Your task to perform on an android device: toggle notification dots Image 0: 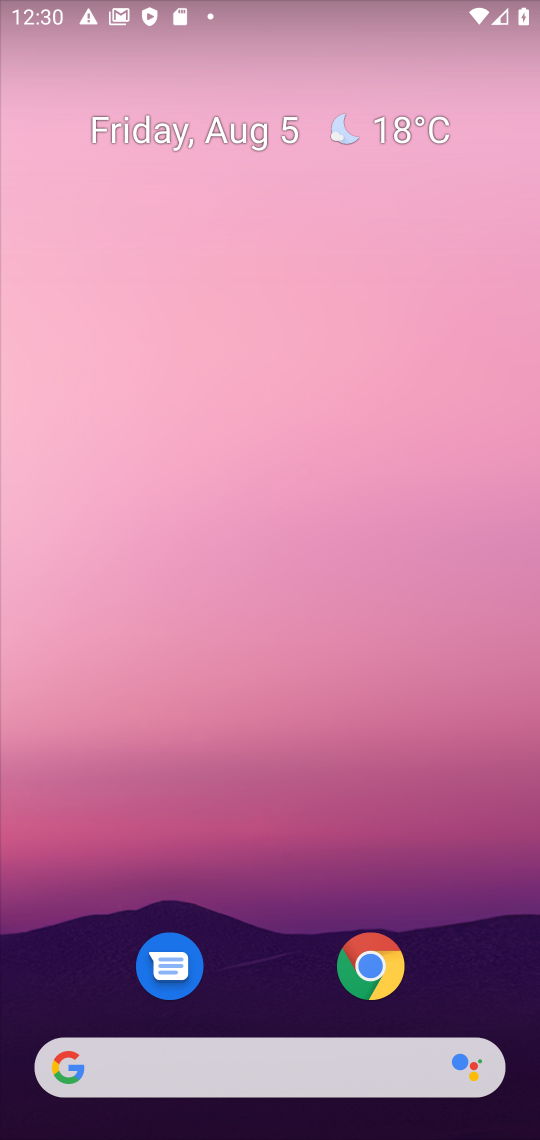
Step 0: drag from (255, 873) to (281, 29)
Your task to perform on an android device: toggle notification dots Image 1: 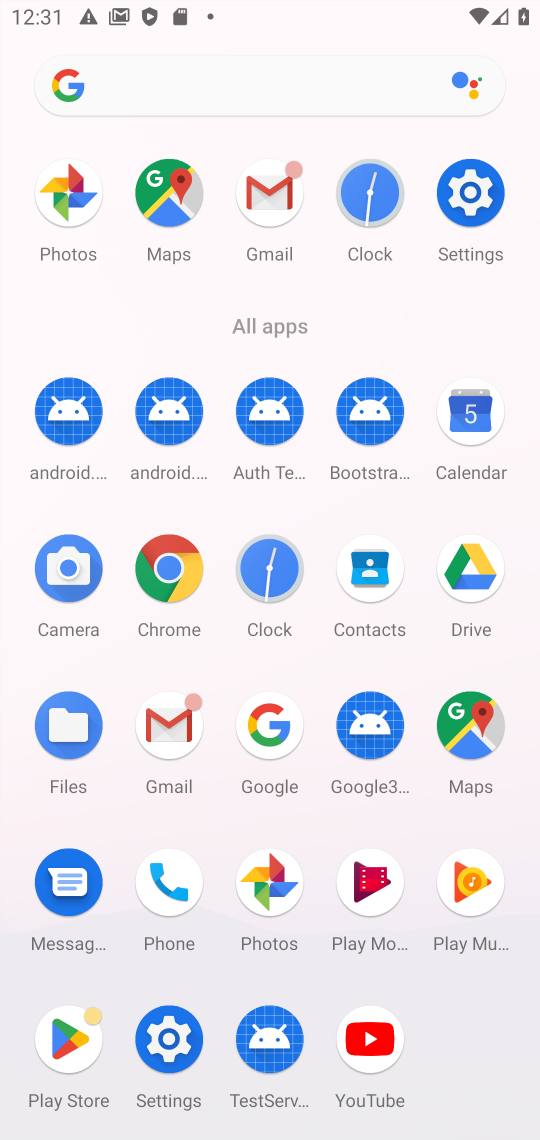
Step 1: click (462, 200)
Your task to perform on an android device: toggle notification dots Image 2: 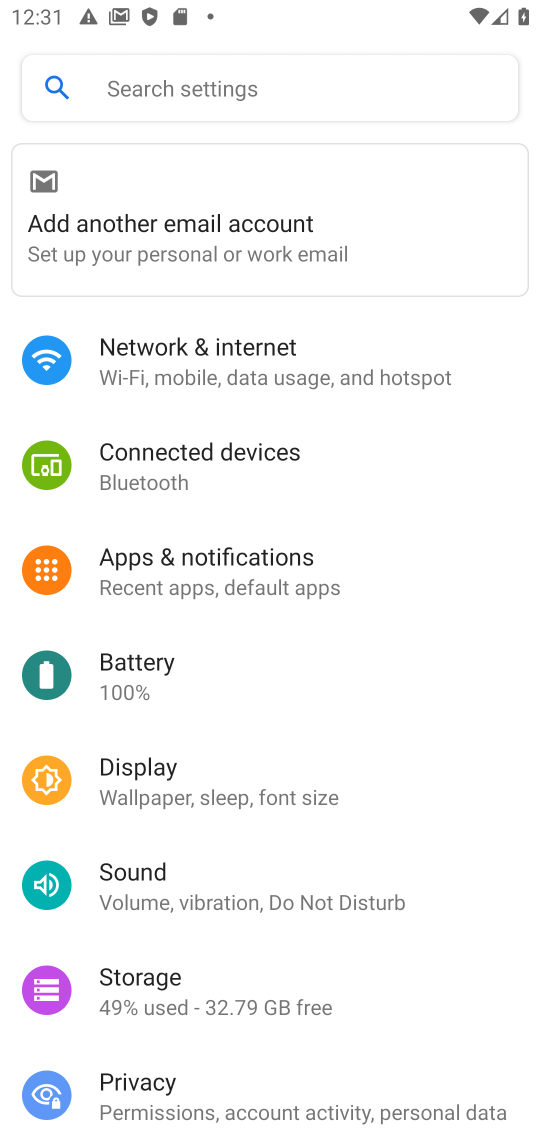
Step 2: click (220, 580)
Your task to perform on an android device: toggle notification dots Image 3: 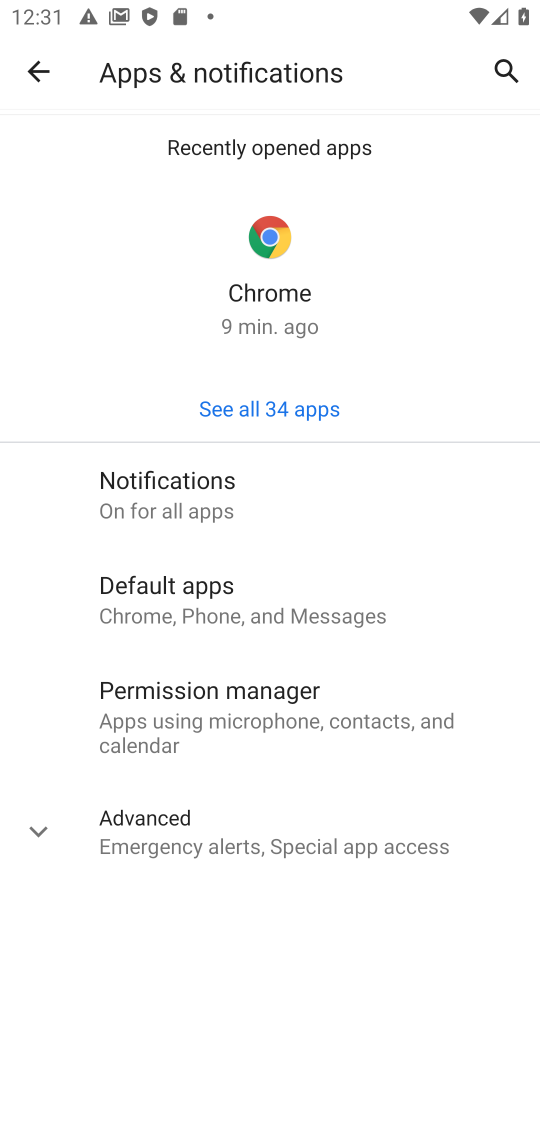
Step 3: click (195, 495)
Your task to perform on an android device: toggle notification dots Image 4: 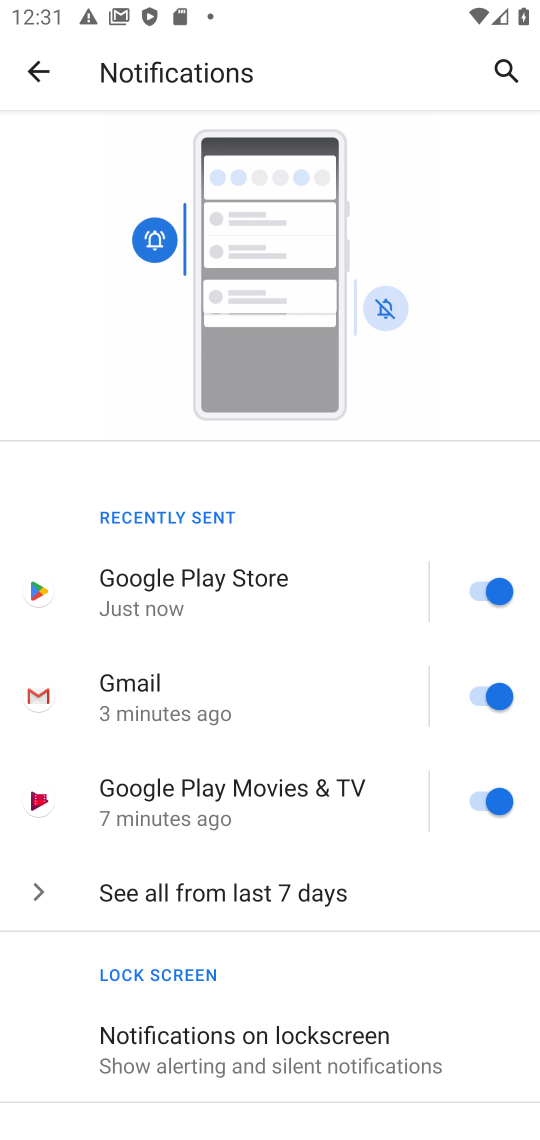
Step 4: drag from (327, 814) to (364, 674)
Your task to perform on an android device: toggle notification dots Image 5: 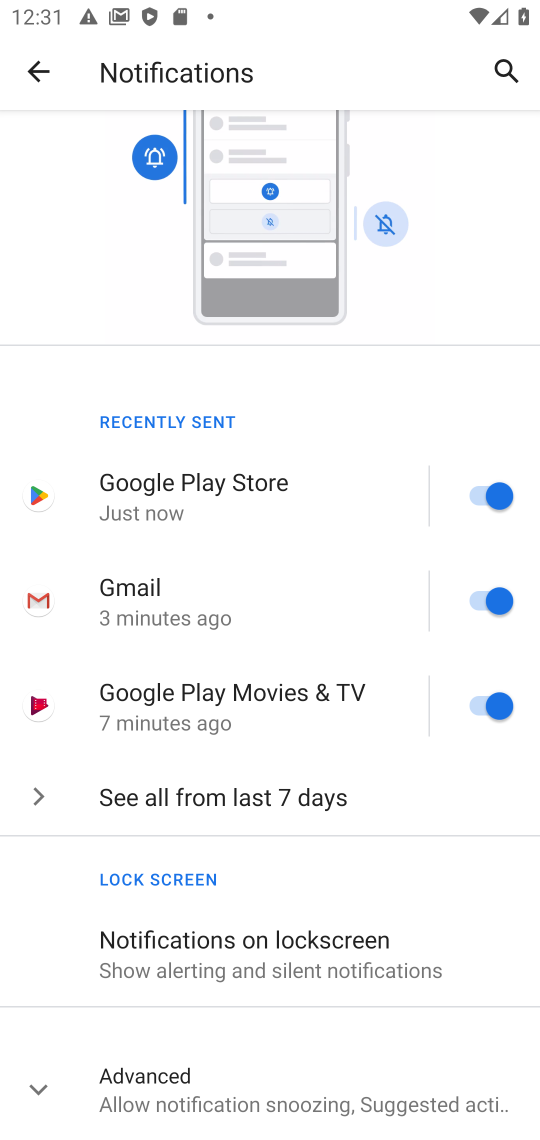
Step 5: click (42, 1088)
Your task to perform on an android device: toggle notification dots Image 6: 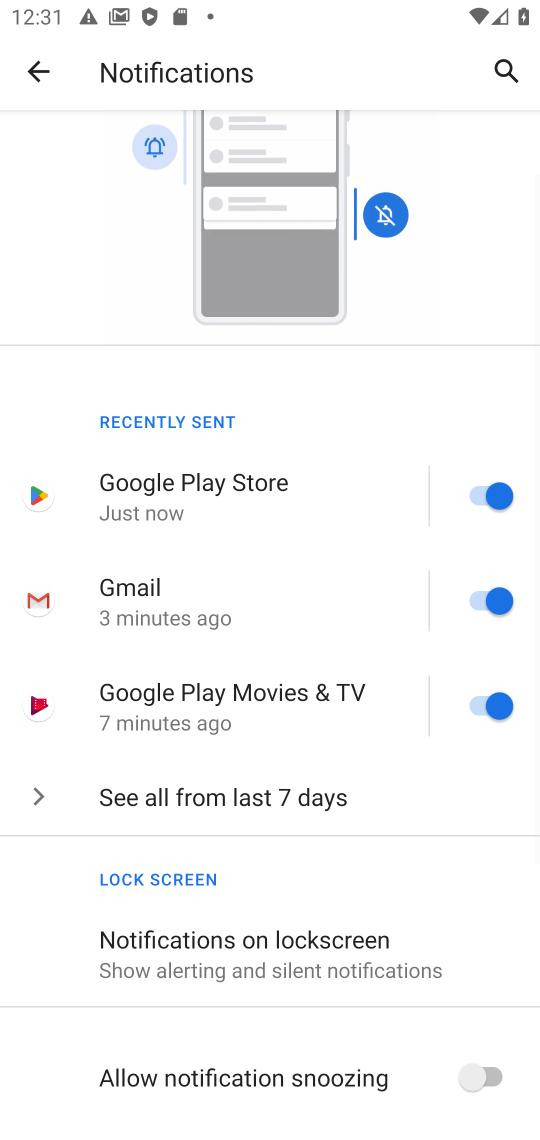
Step 6: drag from (258, 886) to (291, 457)
Your task to perform on an android device: toggle notification dots Image 7: 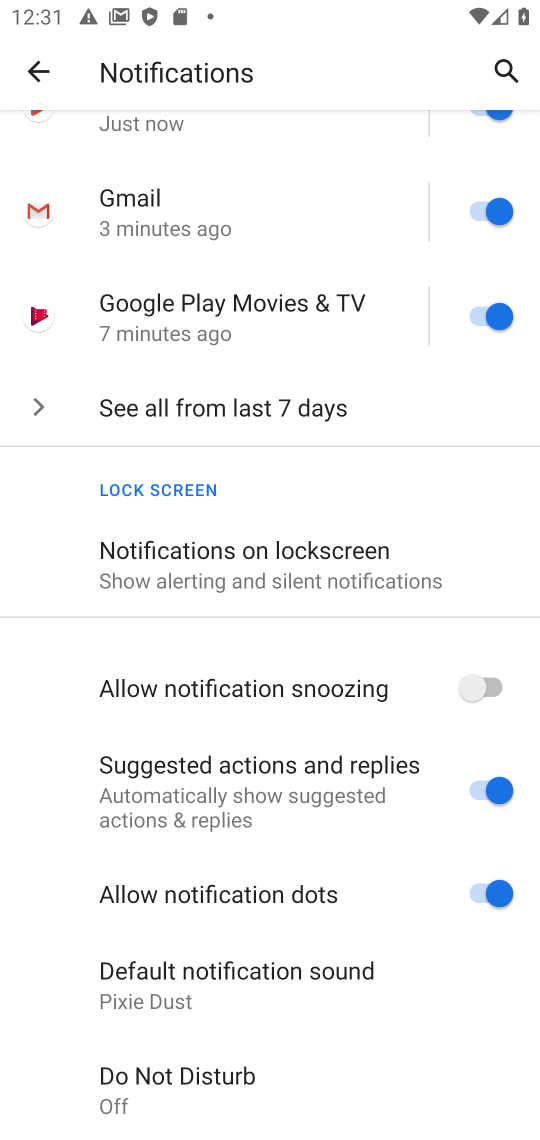
Step 7: click (492, 881)
Your task to perform on an android device: toggle notification dots Image 8: 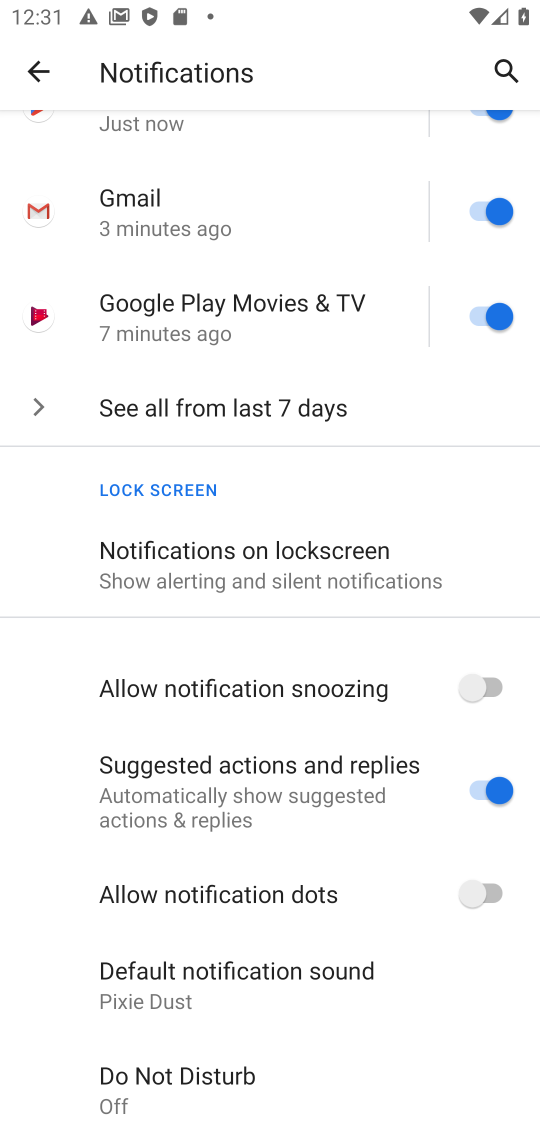
Step 8: task complete